Your task to perform on an android device: turn on the 12-hour format for clock Image 0: 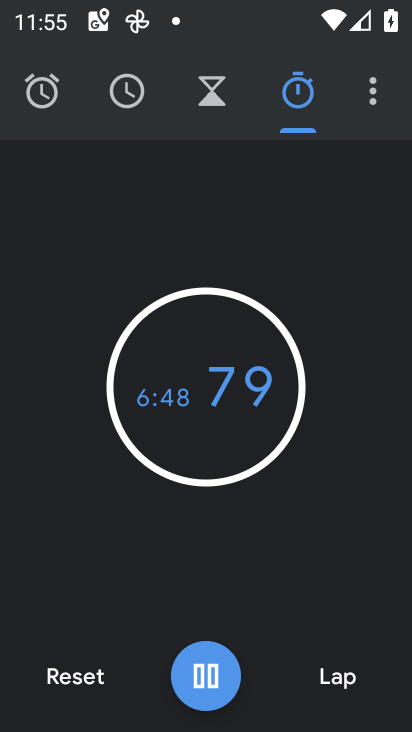
Step 0: press home button
Your task to perform on an android device: turn on the 12-hour format for clock Image 1: 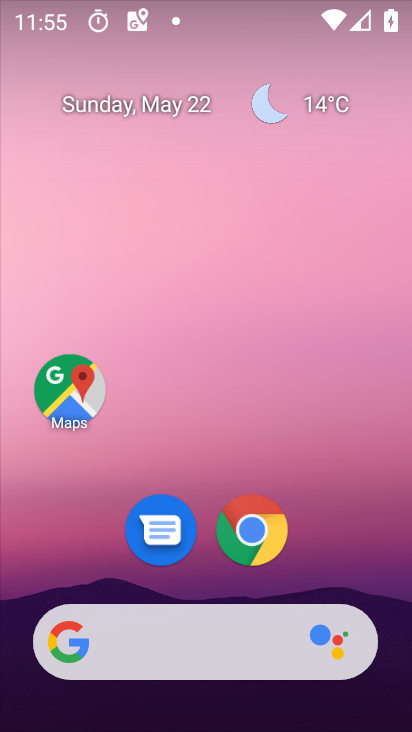
Step 1: drag from (390, 703) to (359, 278)
Your task to perform on an android device: turn on the 12-hour format for clock Image 2: 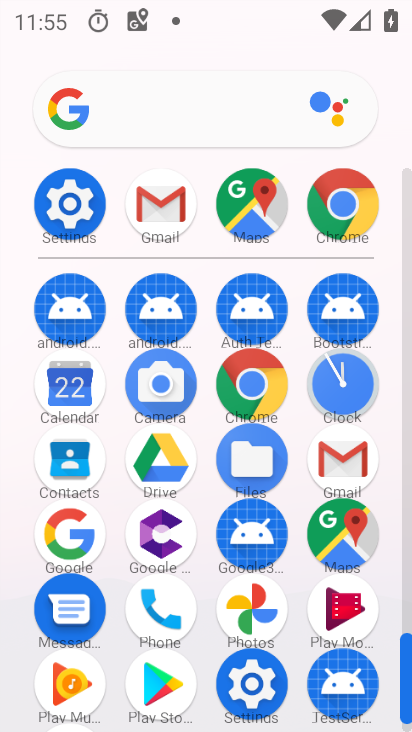
Step 2: click (83, 212)
Your task to perform on an android device: turn on the 12-hour format for clock Image 3: 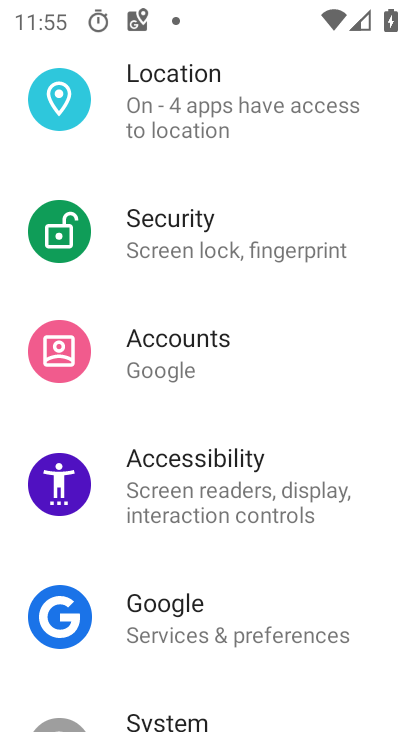
Step 3: press home button
Your task to perform on an android device: turn on the 12-hour format for clock Image 4: 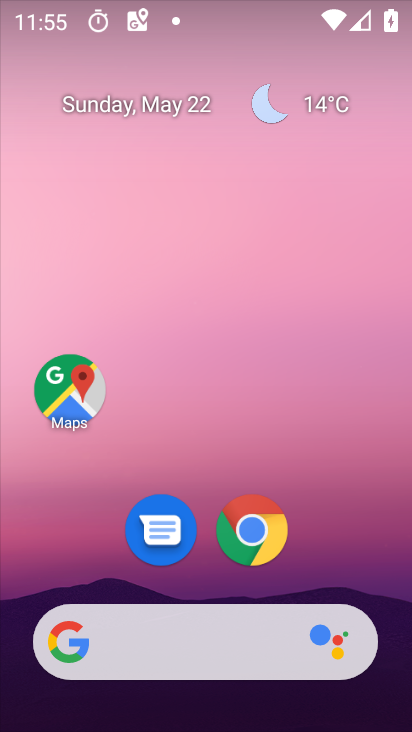
Step 4: drag from (391, 691) to (368, 285)
Your task to perform on an android device: turn on the 12-hour format for clock Image 5: 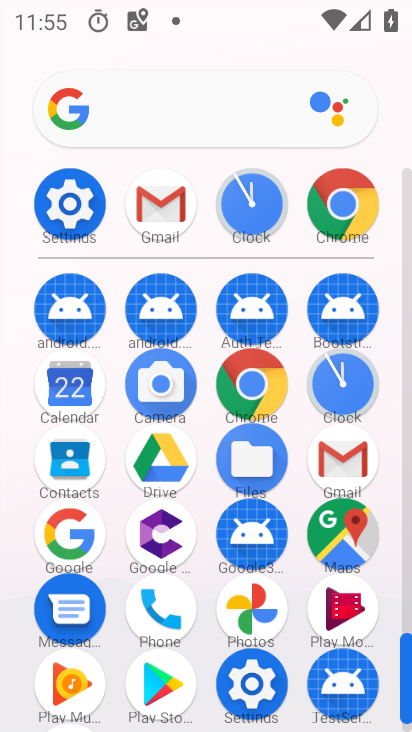
Step 5: click (336, 389)
Your task to perform on an android device: turn on the 12-hour format for clock Image 6: 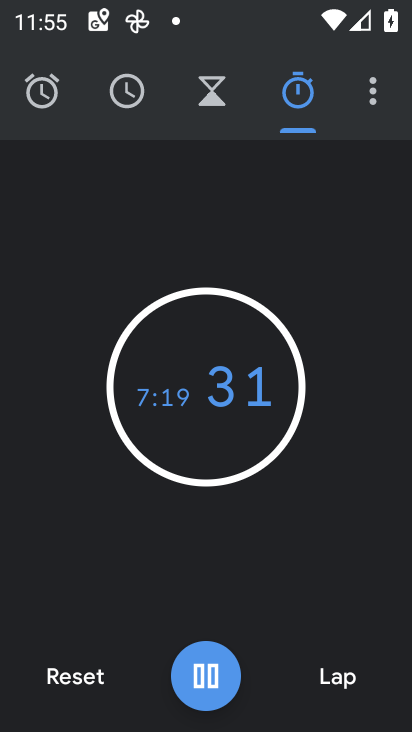
Step 6: click (376, 86)
Your task to perform on an android device: turn on the 12-hour format for clock Image 7: 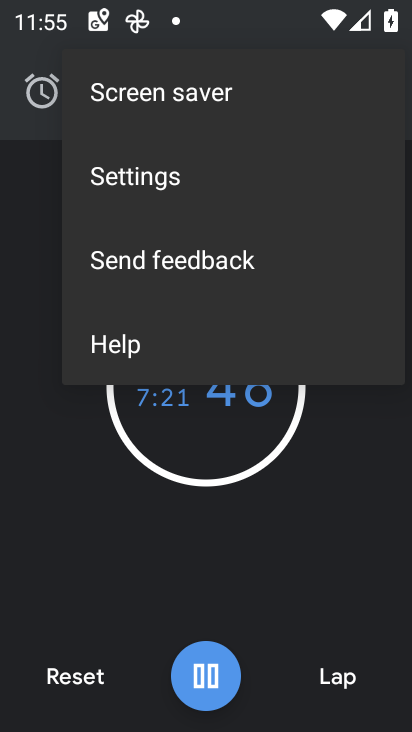
Step 7: click (179, 179)
Your task to perform on an android device: turn on the 12-hour format for clock Image 8: 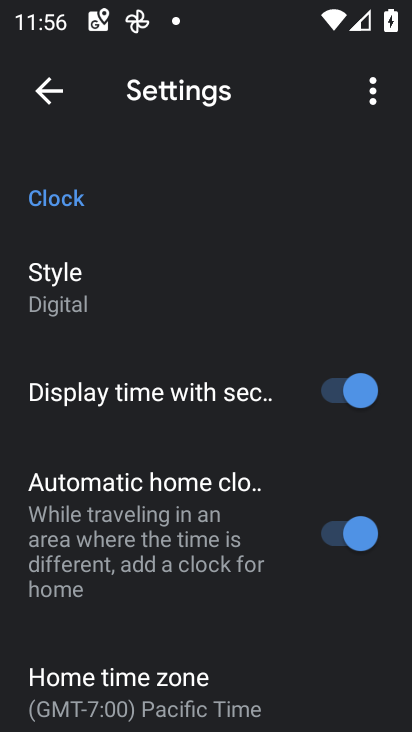
Step 8: drag from (255, 685) to (226, 400)
Your task to perform on an android device: turn on the 12-hour format for clock Image 9: 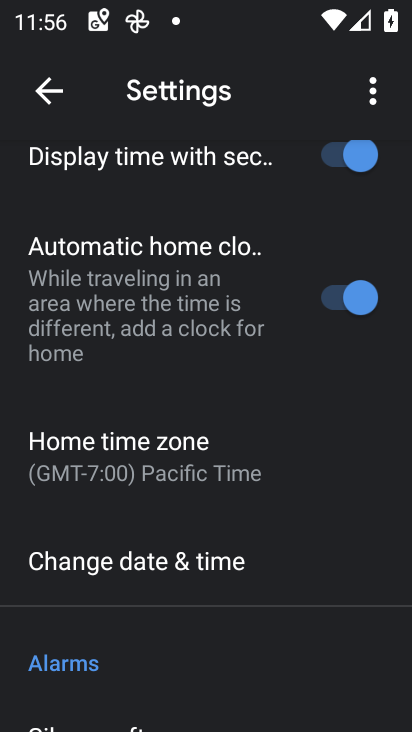
Step 9: drag from (232, 695) to (202, 453)
Your task to perform on an android device: turn on the 12-hour format for clock Image 10: 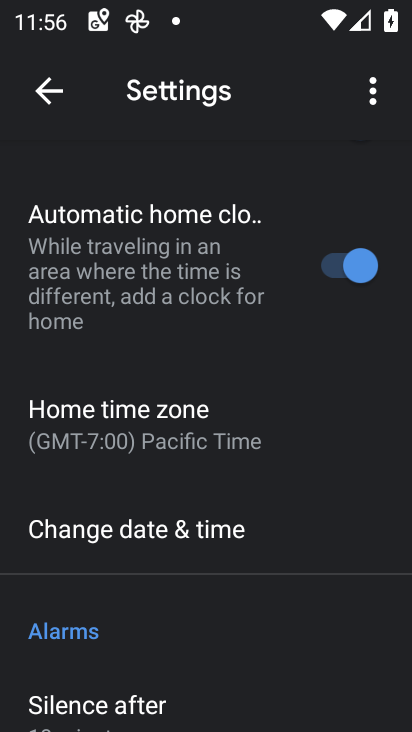
Step 10: click (62, 540)
Your task to perform on an android device: turn on the 12-hour format for clock Image 11: 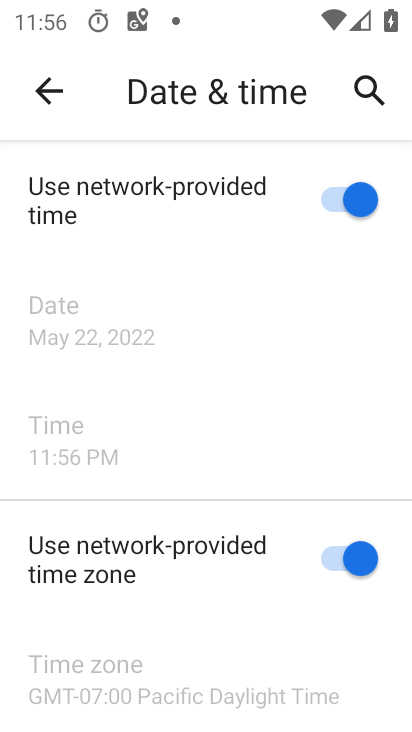
Step 11: task complete